Your task to perform on an android device: Show me popular videos on Youtube Image 0: 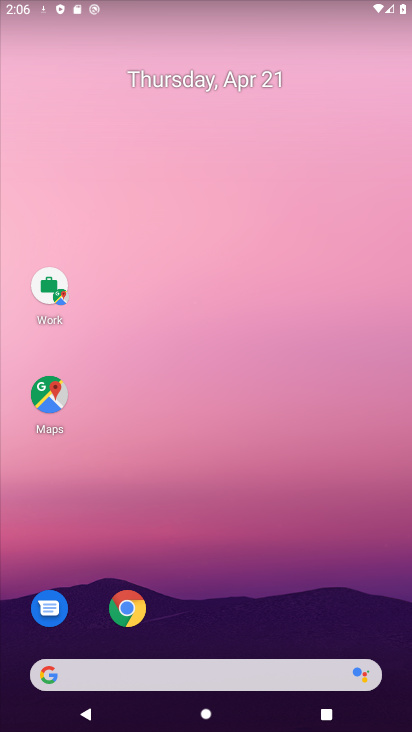
Step 0: drag from (199, 429) to (164, 218)
Your task to perform on an android device: Show me popular videos on Youtube Image 1: 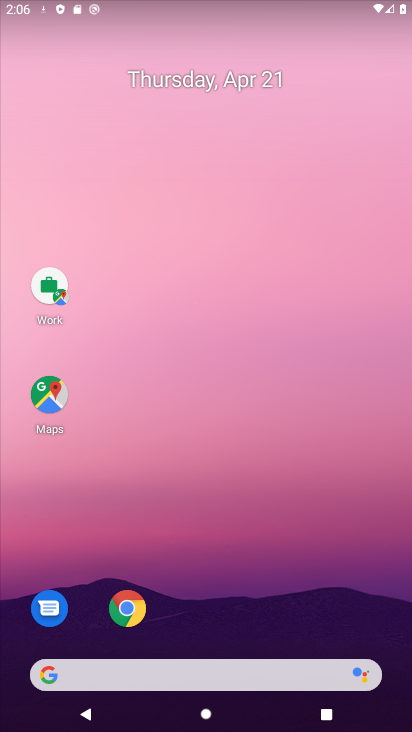
Step 1: drag from (219, 618) to (171, 173)
Your task to perform on an android device: Show me popular videos on Youtube Image 2: 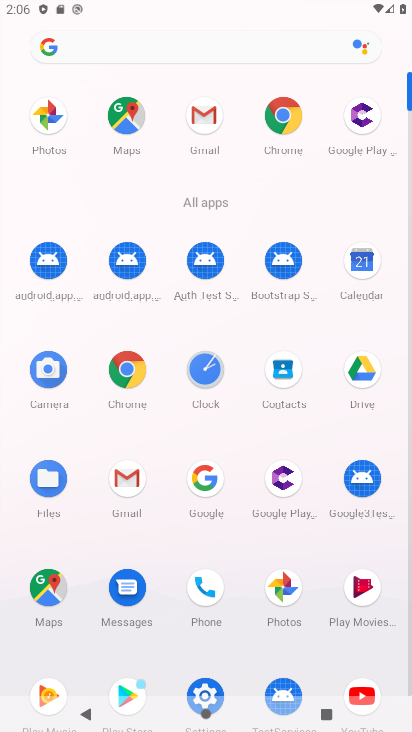
Step 2: drag from (358, 628) to (383, 382)
Your task to perform on an android device: Show me popular videos on Youtube Image 3: 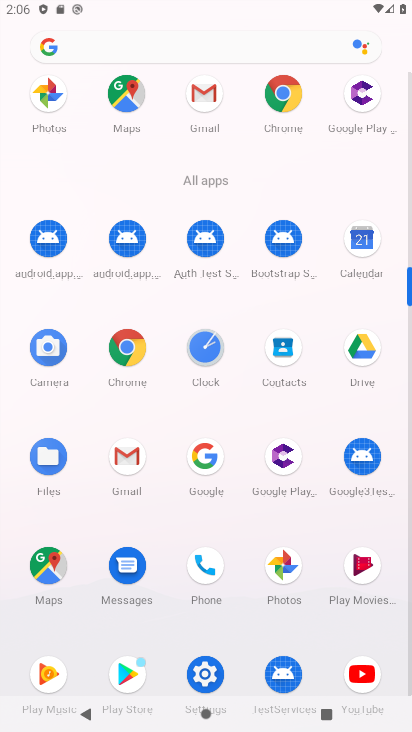
Step 3: click (364, 672)
Your task to perform on an android device: Show me popular videos on Youtube Image 4: 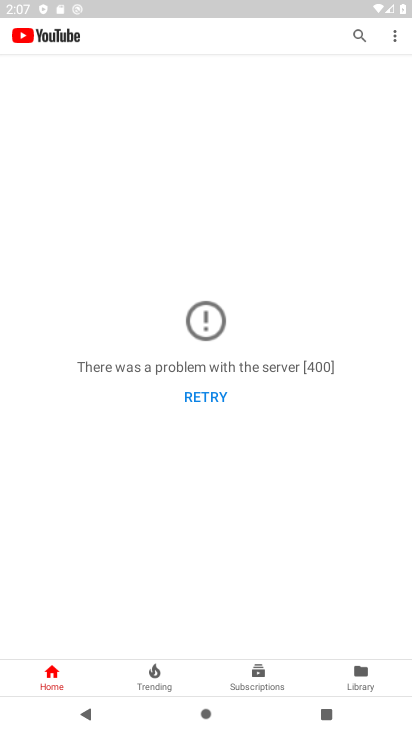
Step 4: click (212, 398)
Your task to perform on an android device: Show me popular videos on Youtube Image 5: 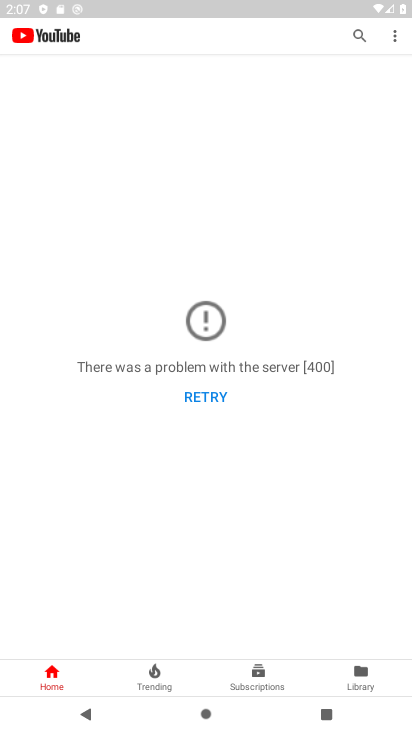
Step 5: click (213, 395)
Your task to perform on an android device: Show me popular videos on Youtube Image 6: 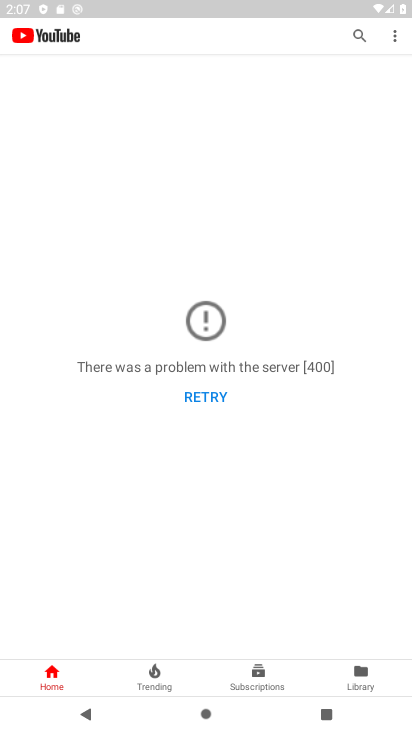
Step 6: task complete